Your task to perform on an android device: Search for "dell xps" on ebay, select the first entry, add it to the cart, then select checkout. Image 0: 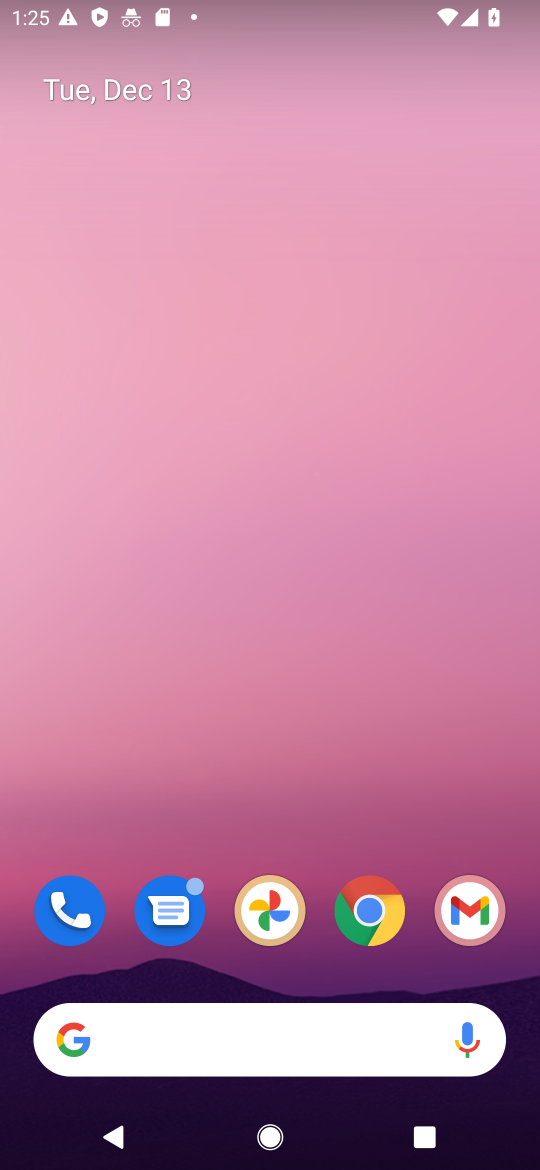
Step 0: click (379, 909)
Your task to perform on an android device: Search for "dell xps" on ebay, select the first entry, add it to the cart, then select checkout. Image 1: 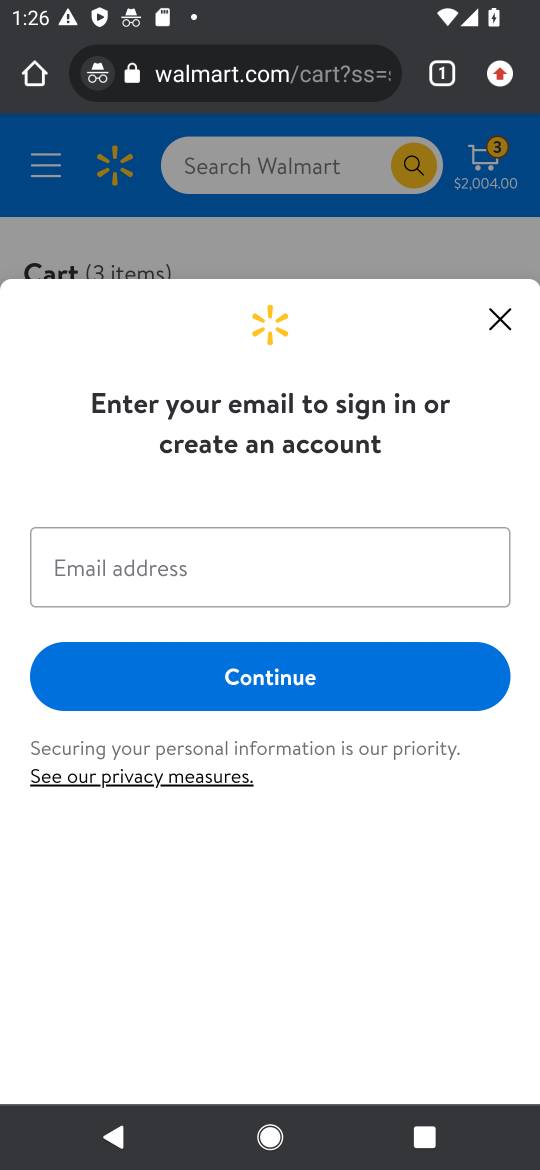
Step 1: click (500, 316)
Your task to perform on an android device: Search for "dell xps" on ebay, select the first entry, add it to the cart, then select checkout. Image 2: 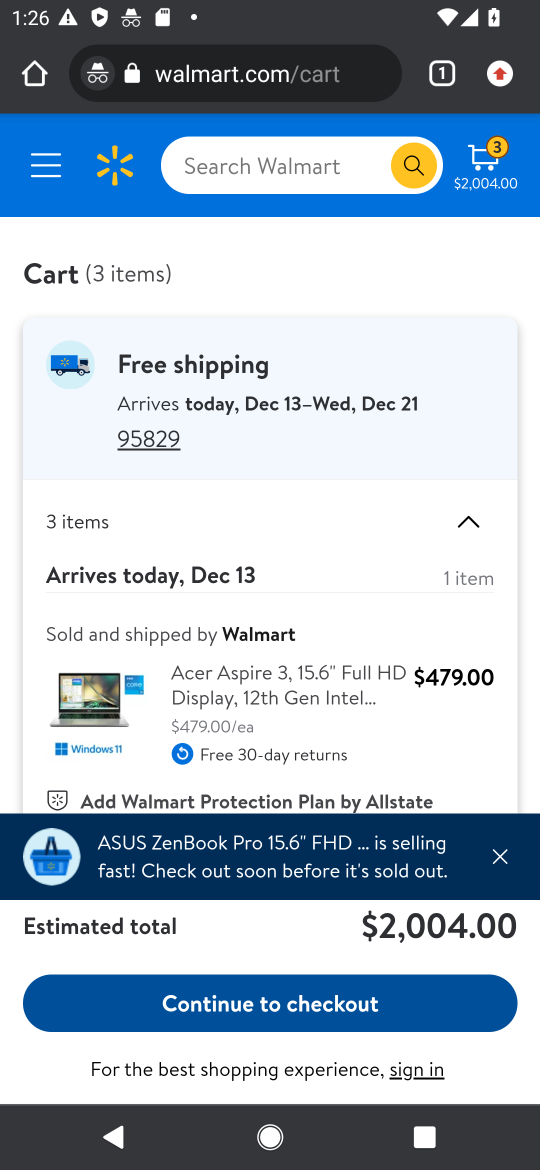
Step 2: click (255, 78)
Your task to perform on an android device: Search for "dell xps" on ebay, select the first entry, add it to the cart, then select checkout. Image 3: 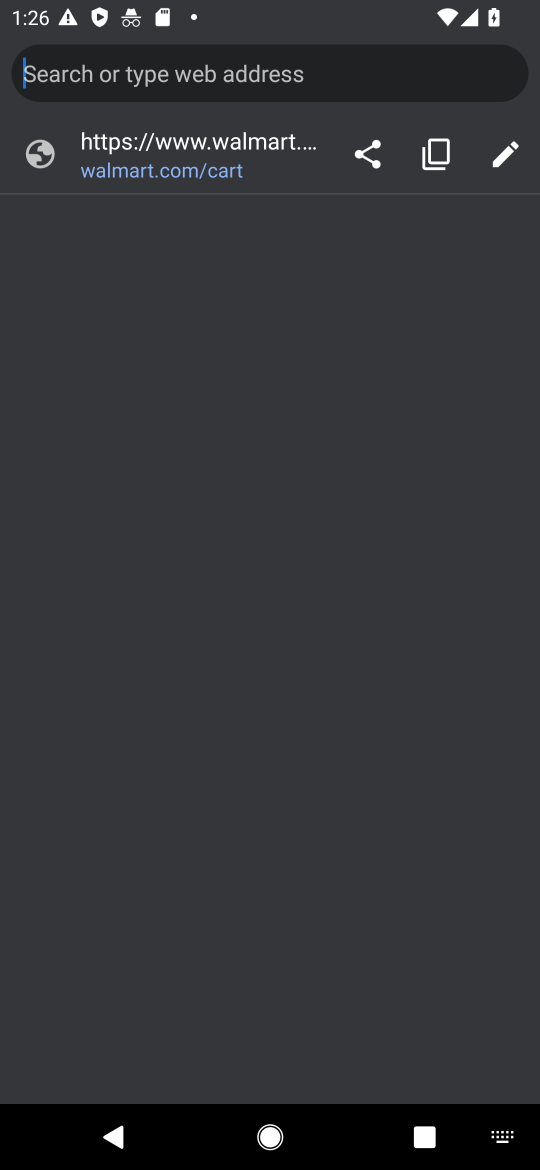
Step 3: type "XBAY"
Your task to perform on an android device: Search for "dell xps" on ebay, select the first entry, add it to the cart, then select checkout. Image 4: 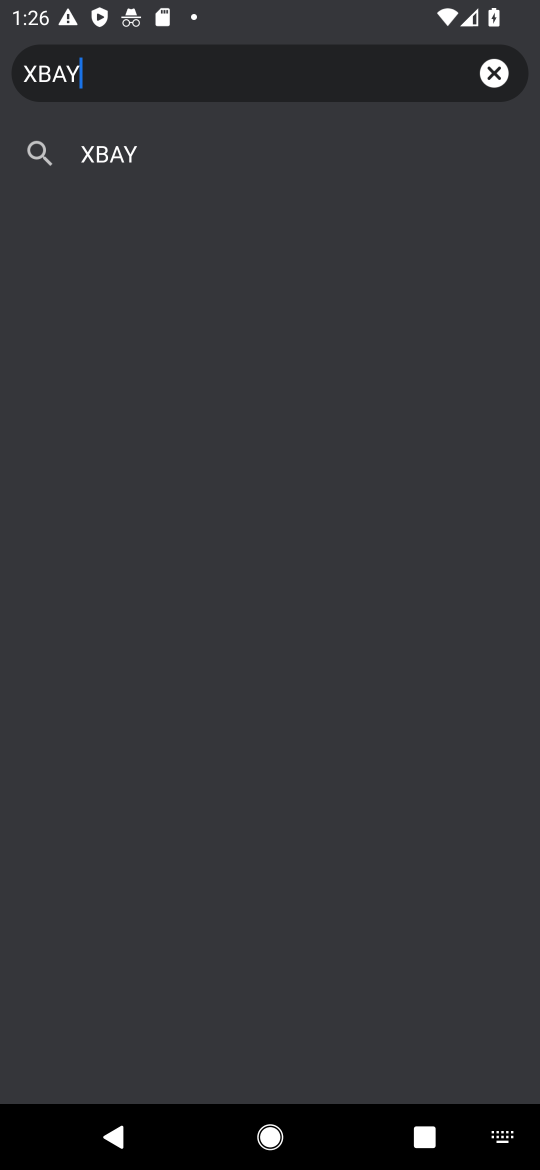
Step 4: click (489, 74)
Your task to perform on an android device: Search for "dell xps" on ebay, select the first entry, add it to the cart, then select checkout. Image 5: 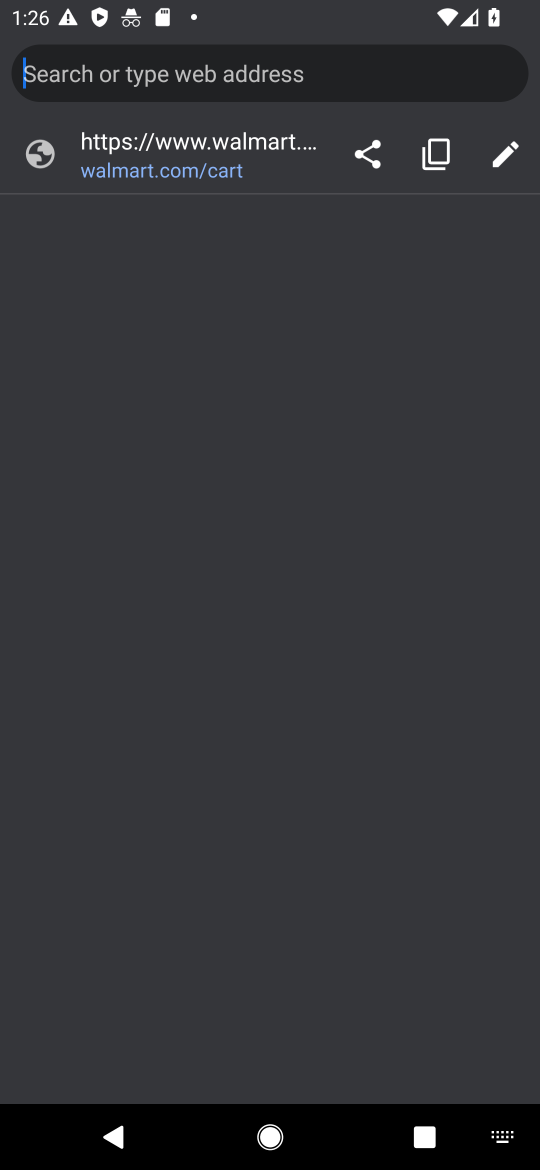
Step 5: type "EBAY"
Your task to perform on an android device: Search for "dell xps" on ebay, select the first entry, add it to the cart, then select checkout. Image 6: 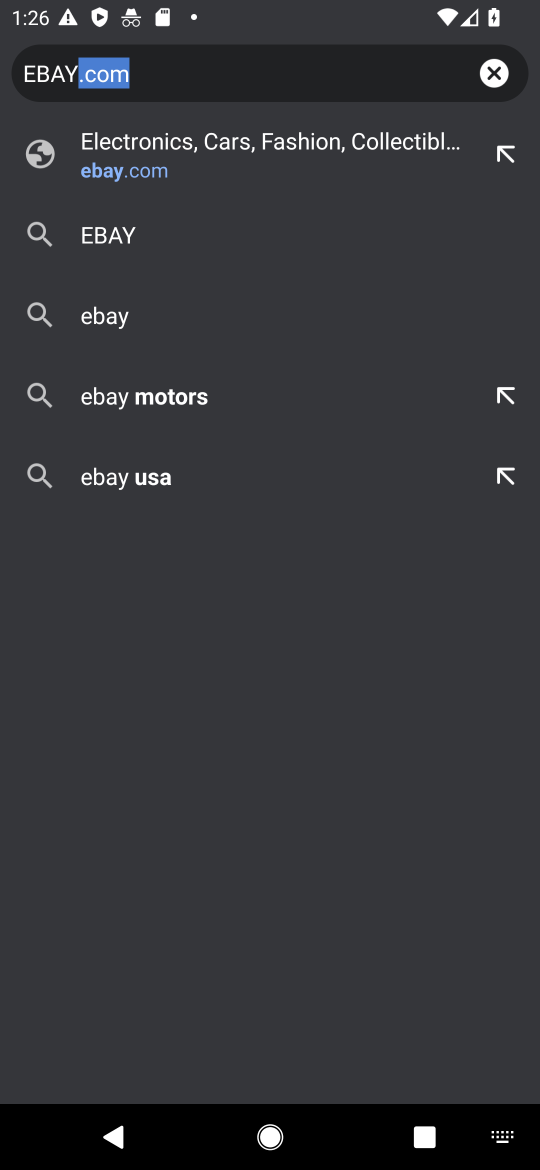
Step 6: click (199, 168)
Your task to perform on an android device: Search for "dell xps" on ebay, select the first entry, add it to the cart, then select checkout. Image 7: 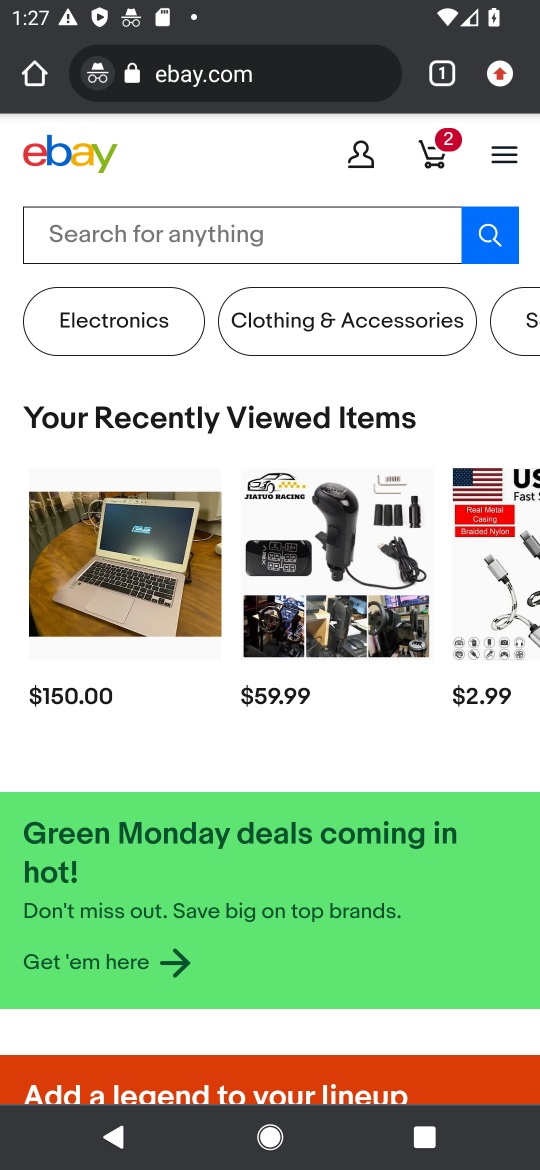
Step 7: click (261, 238)
Your task to perform on an android device: Search for "dell xps" on ebay, select the first entry, add it to the cart, then select checkout. Image 8: 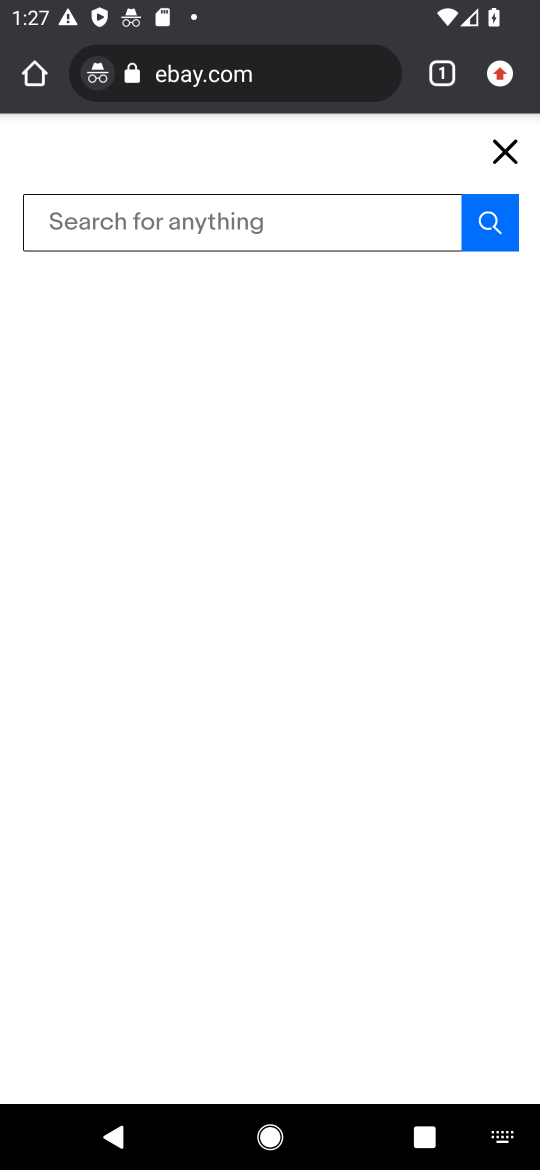
Step 8: type "DELL XPS"
Your task to perform on an android device: Search for "dell xps" on ebay, select the first entry, add it to the cart, then select checkout. Image 9: 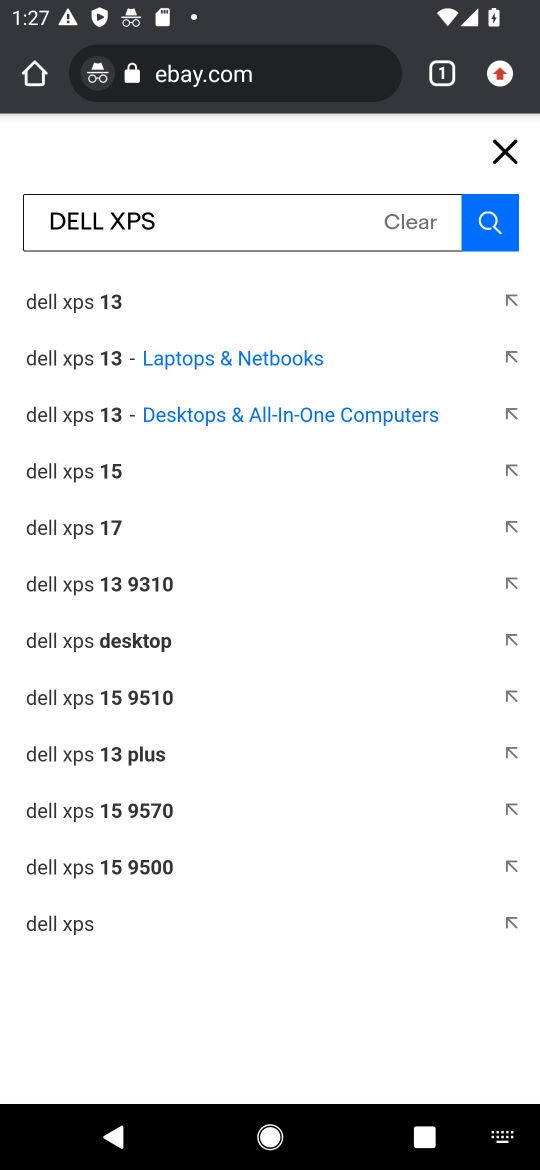
Step 9: click (105, 303)
Your task to perform on an android device: Search for "dell xps" on ebay, select the first entry, add it to the cart, then select checkout. Image 10: 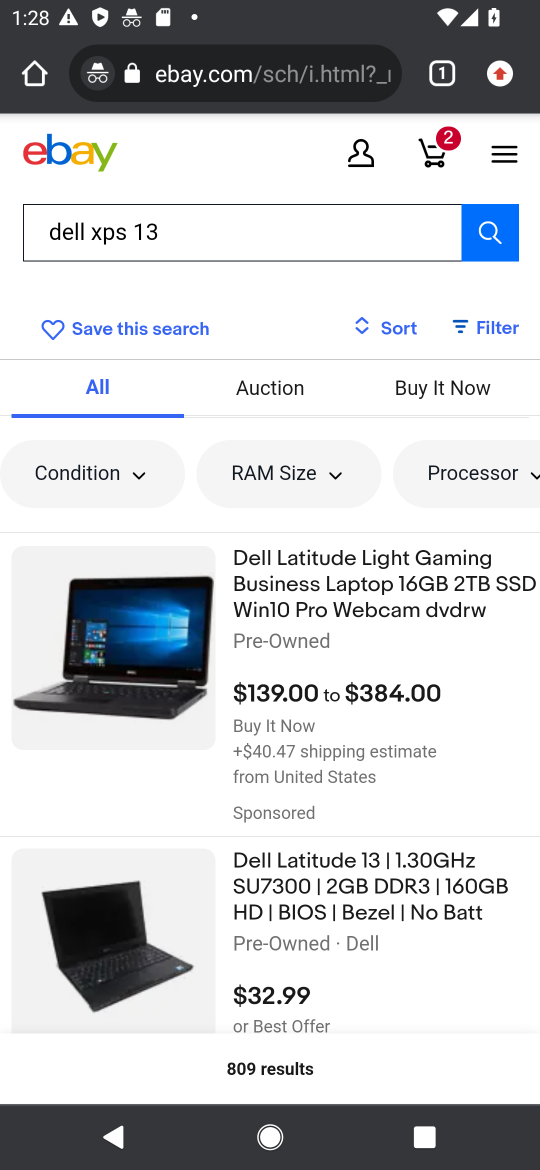
Step 10: click (369, 583)
Your task to perform on an android device: Search for "dell xps" on ebay, select the first entry, add it to the cart, then select checkout. Image 11: 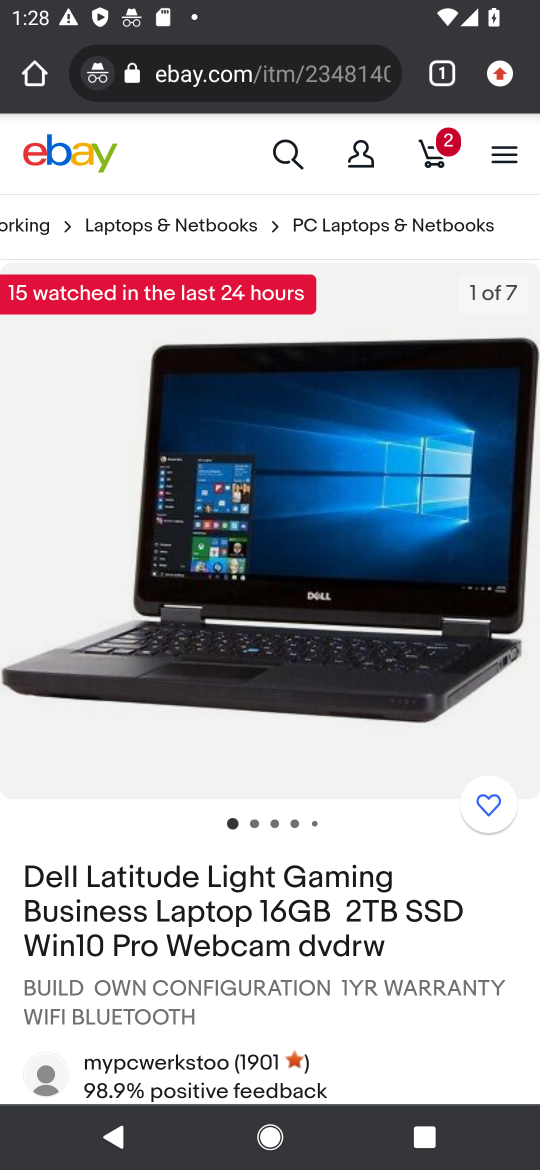
Step 11: drag from (381, 953) to (285, 265)
Your task to perform on an android device: Search for "dell xps" on ebay, select the first entry, add it to the cart, then select checkout. Image 12: 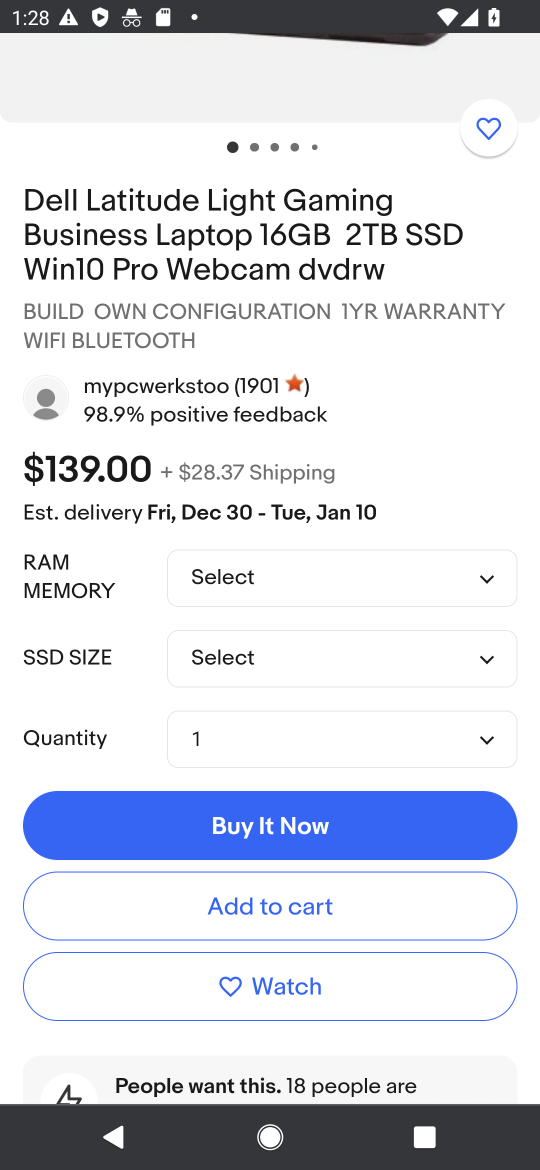
Step 12: click (318, 900)
Your task to perform on an android device: Search for "dell xps" on ebay, select the first entry, add it to the cart, then select checkout. Image 13: 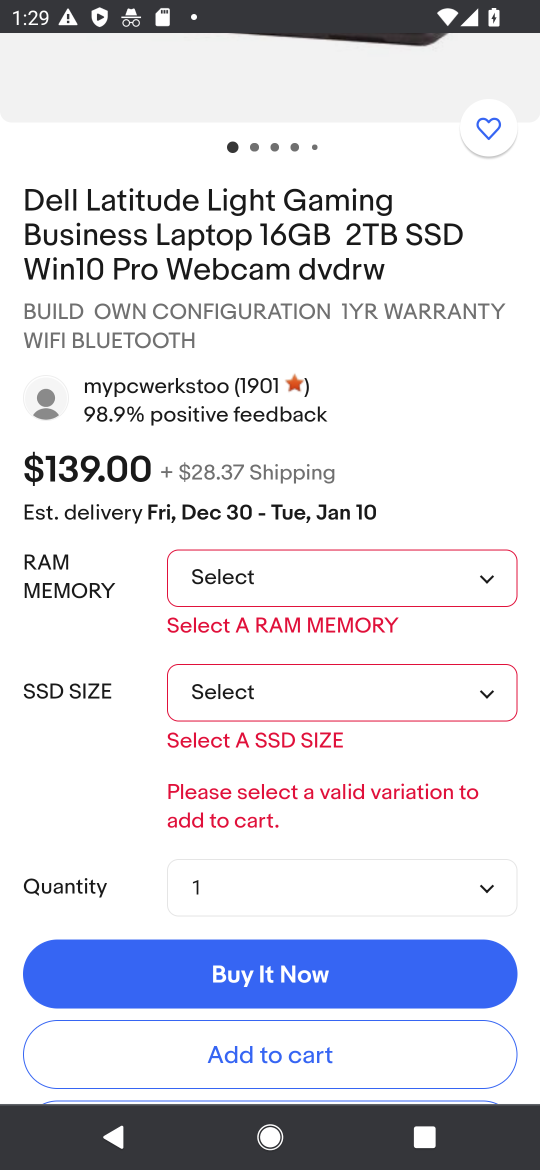
Step 13: click (359, 587)
Your task to perform on an android device: Search for "dell xps" on ebay, select the first entry, add it to the cart, then select checkout. Image 14: 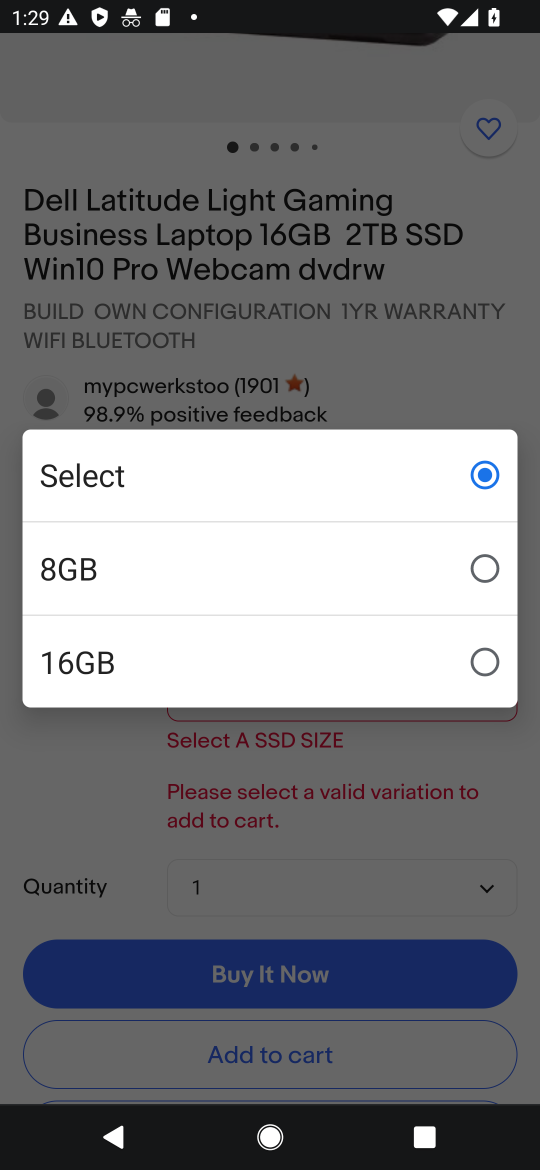
Step 14: click (206, 578)
Your task to perform on an android device: Search for "dell xps" on ebay, select the first entry, add it to the cart, then select checkout. Image 15: 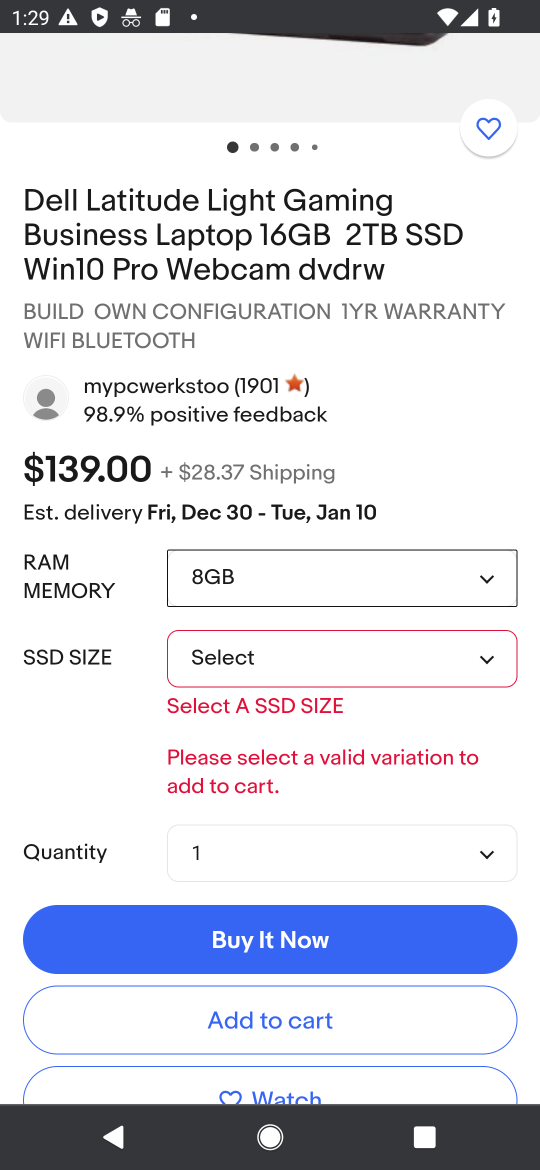
Step 15: click (439, 655)
Your task to perform on an android device: Search for "dell xps" on ebay, select the first entry, add it to the cart, then select checkout. Image 16: 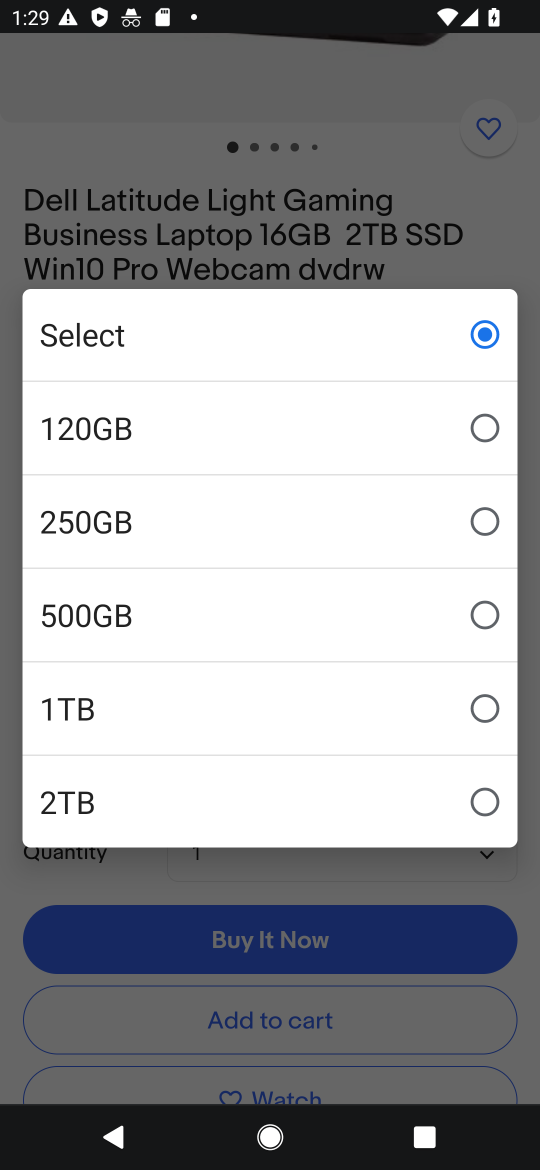
Step 16: click (264, 417)
Your task to perform on an android device: Search for "dell xps" on ebay, select the first entry, add it to the cart, then select checkout. Image 17: 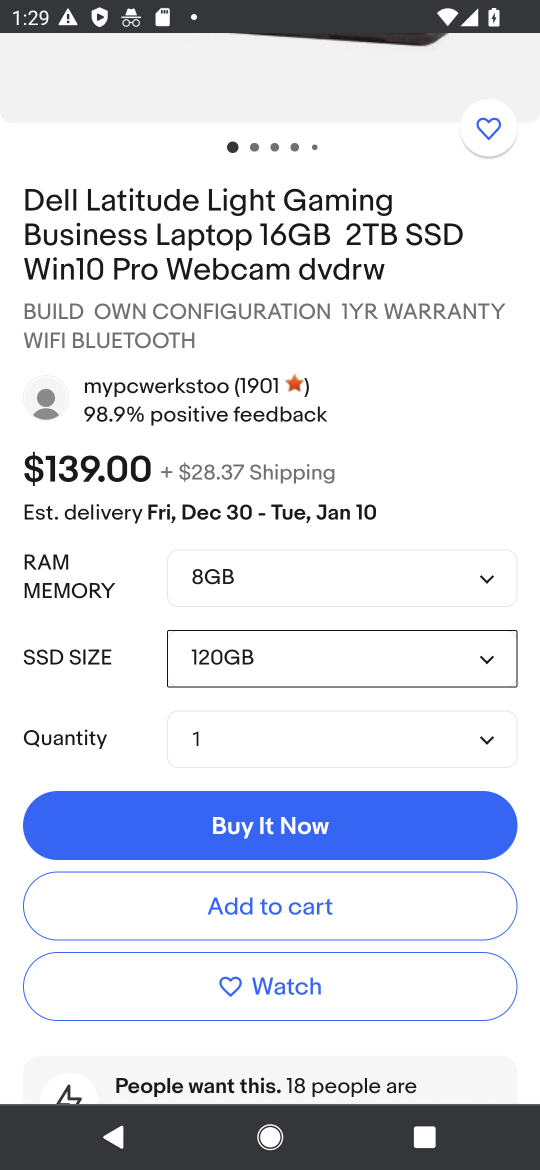
Step 17: click (304, 907)
Your task to perform on an android device: Search for "dell xps" on ebay, select the first entry, add it to the cart, then select checkout. Image 18: 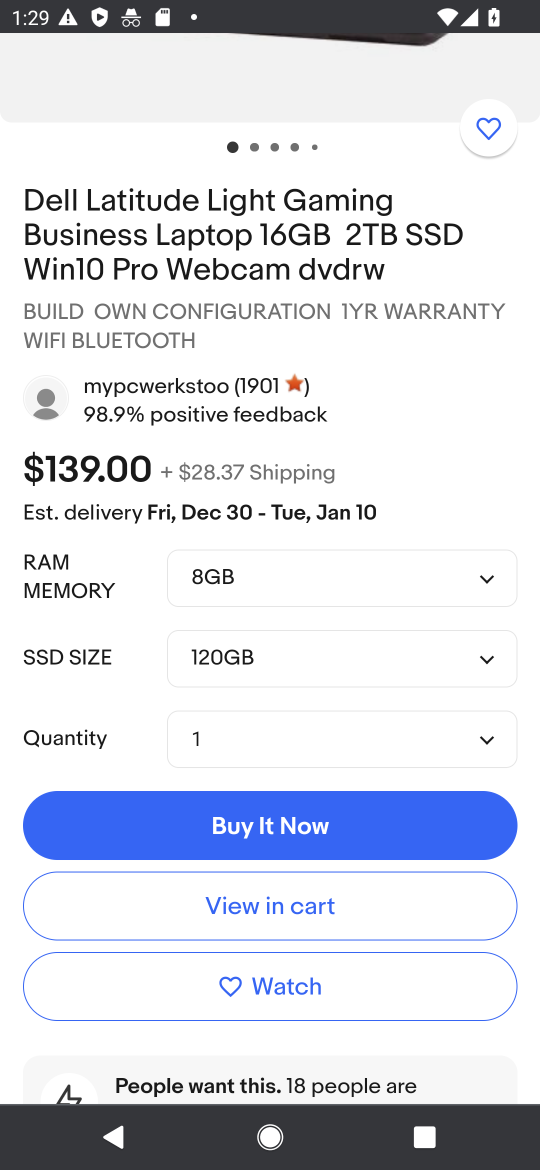
Step 18: click (304, 907)
Your task to perform on an android device: Search for "dell xps" on ebay, select the first entry, add it to the cart, then select checkout. Image 19: 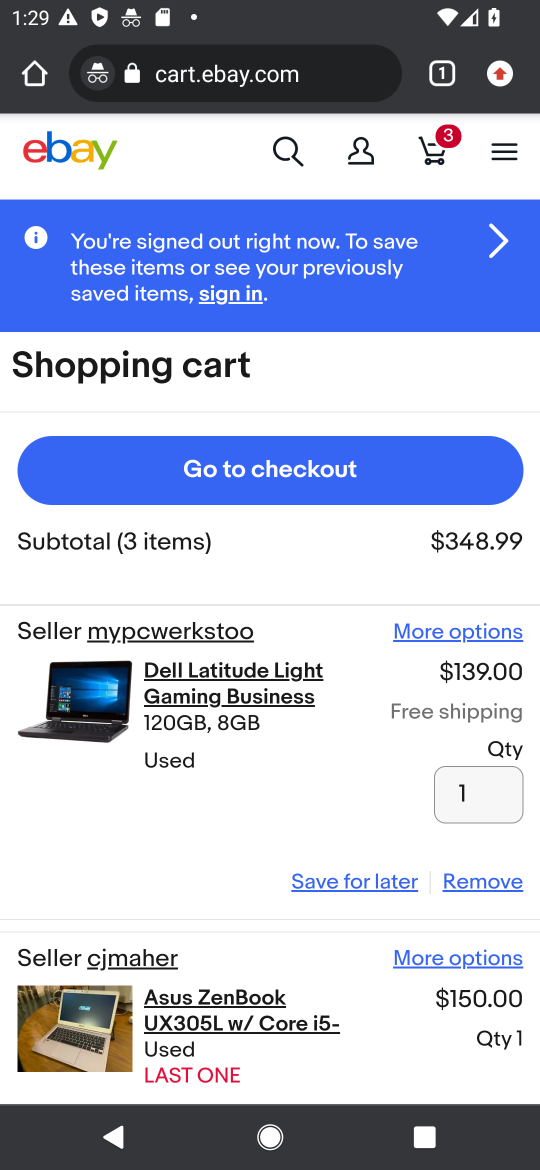
Step 19: click (285, 477)
Your task to perform on an android device: Search for "dell xps" on ebay, select the first entry, add it to the cart, then select checkout. Image 20: 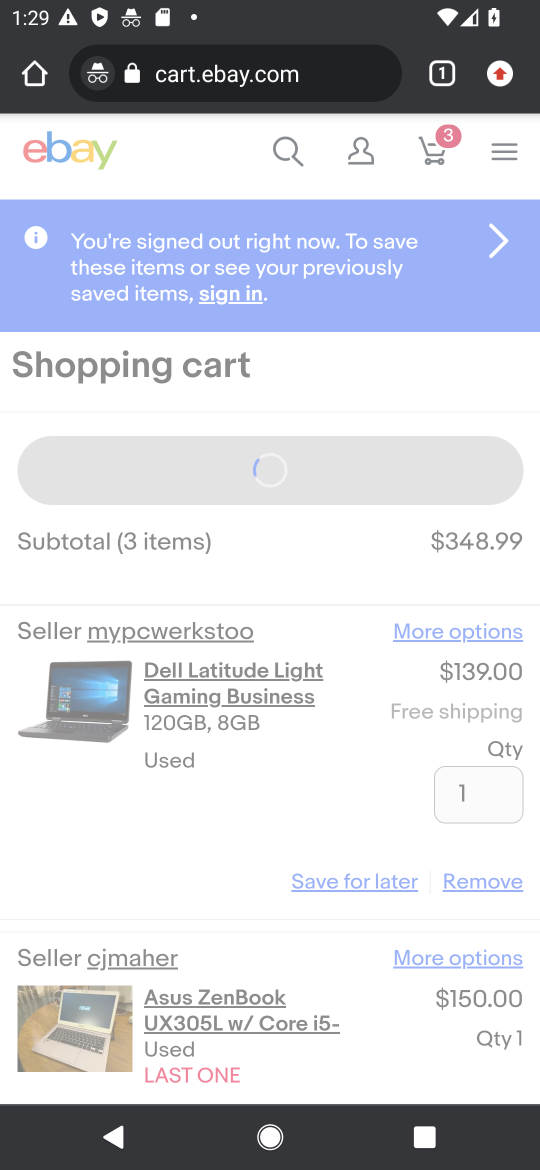
Step 20: task complete